Your task to perform on an android device: Open calendar and show me the fourth week of next month Image 0: 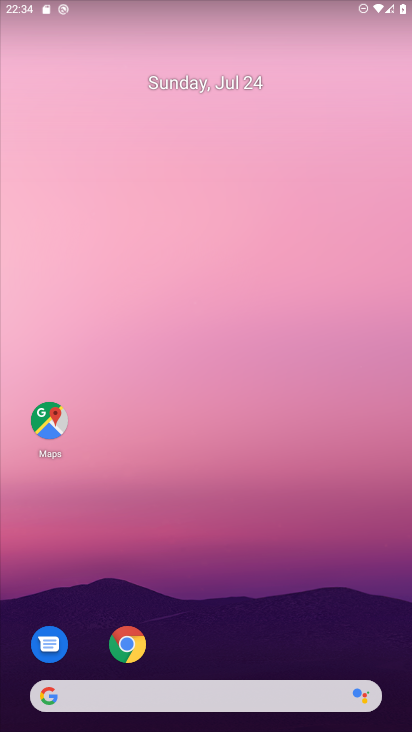
Step 0: drag from (387, 648) to (325, 33)
Your task to perform on an android device: Open calendar and show me the fourth week of next month Image 1: 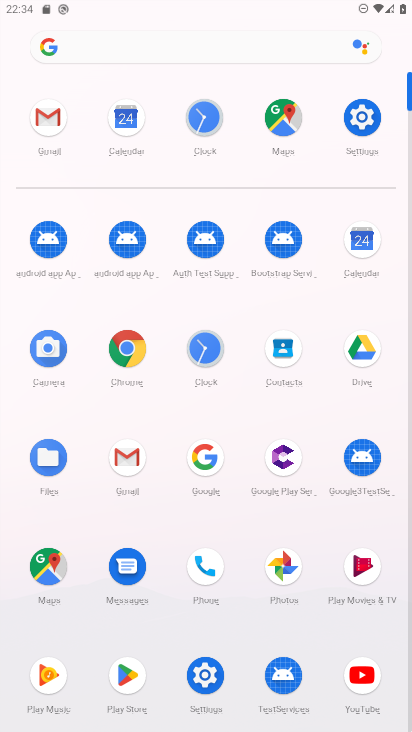
Step 1: click (361, 241)
Your task to perform on an android device: Open calendar and show me the fourth week of next month Image 2: 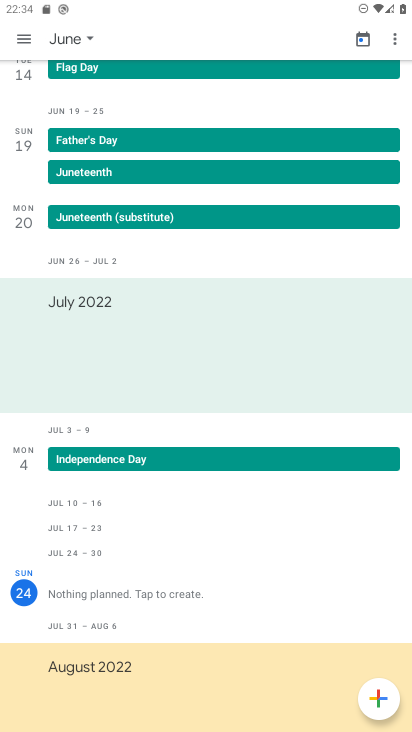
Step 2: click (27, 41)
Your task to perform on an android device: Open calendar and show me the fourth week of next month Image 3: 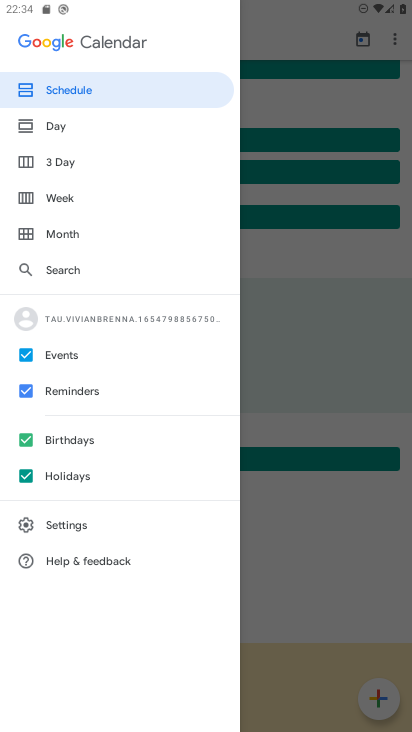
Step 3: click (59, 200)
Your task to perform on an android device: Open calendar and show me the fourth week of next month Image 4: 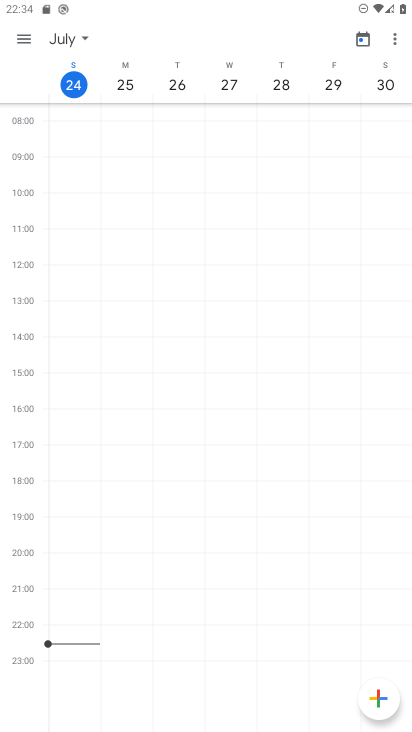
Step 4: click (80, 39)
Your task to perform on an android device: Open calendar and show me the fourth week of next month Image 5: 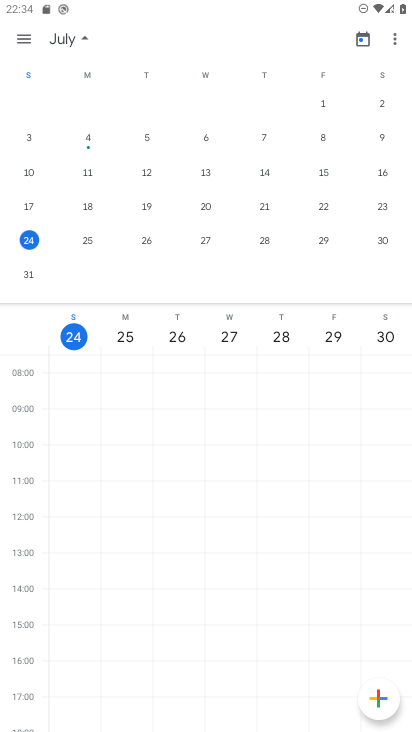
Step 5: drag from (382, 231) to (38, 178)
Your task to perform on an android device: Open calendar and show me the fourth week of next month Image 6: 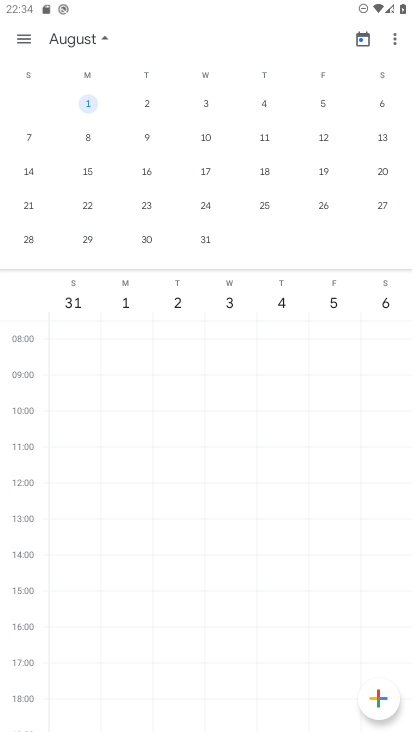
Step 6: click (28, 238)
Your task to perform on an android device: Open calendar and show me the fourth week of next month Image 7: 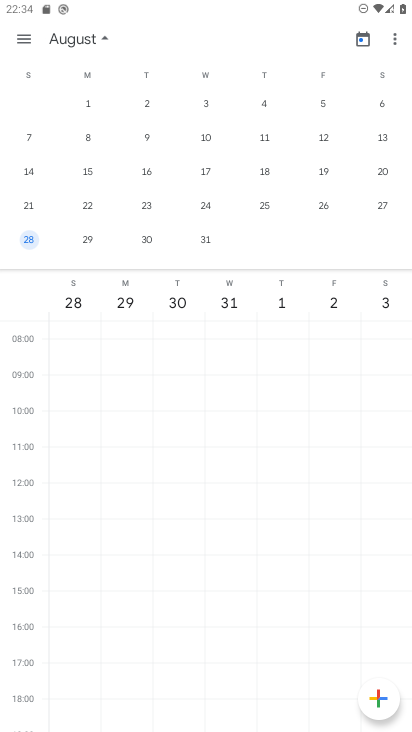
Step 7: task complete